Your task to perform on an android device: Open sound settings Image 0: 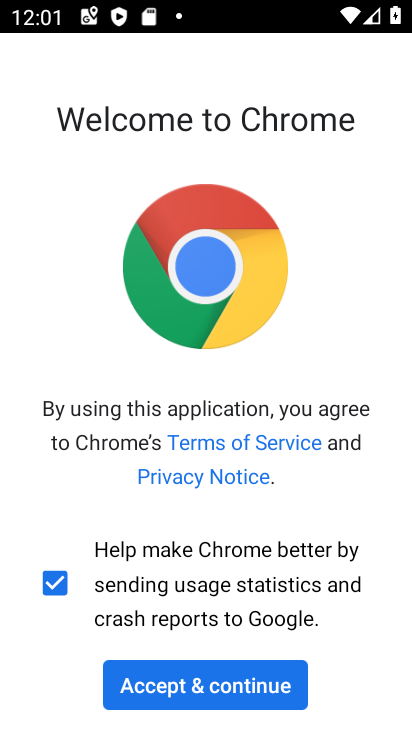
Step 0: press home button
Your task to perform on an android device: Open sound settings Image 1: 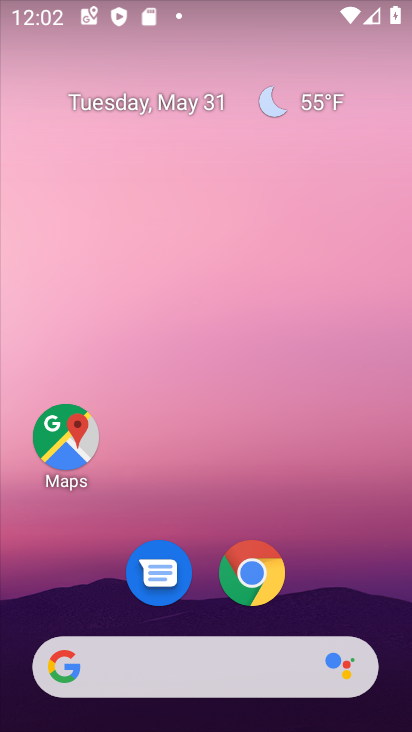
Step 1: click (364, 21)
Your task to perform on an android device: Open sound settings Image 2: 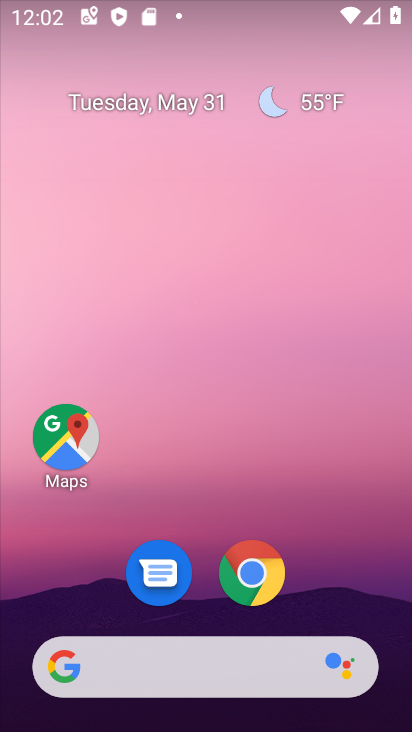
Step 2: drag from (318, 550) to (330, 47)
Your task to perform on an android device: Open sound settings Image 3: 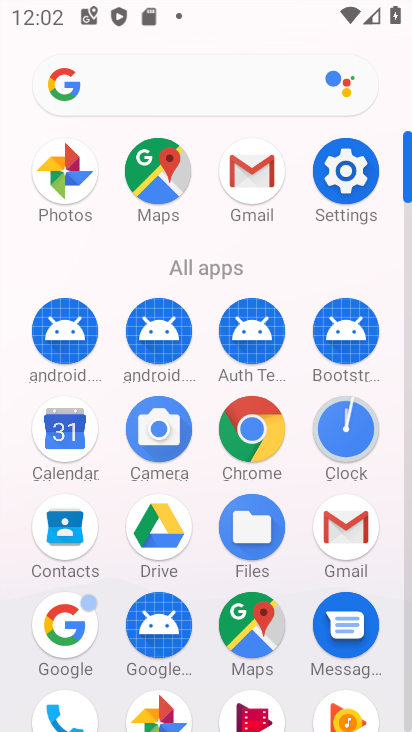
Step 3: click (342, 170)
Your task to perform on an android device: Open sound settings Image 4: 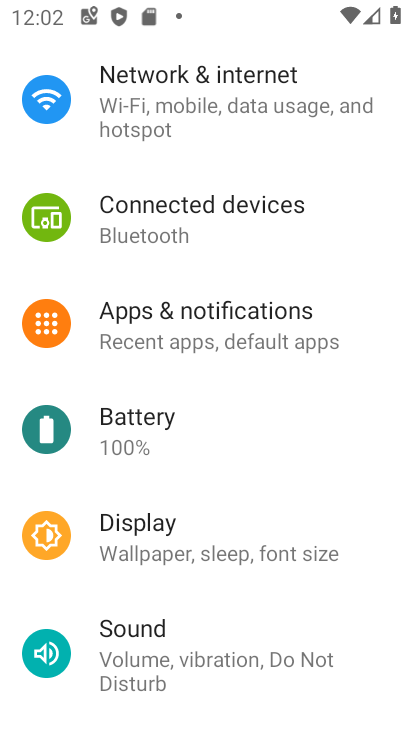
Step 4: drag from (182, 112) to (213, 450)
Your task to perform on an android device: Open sound settings Image 5: 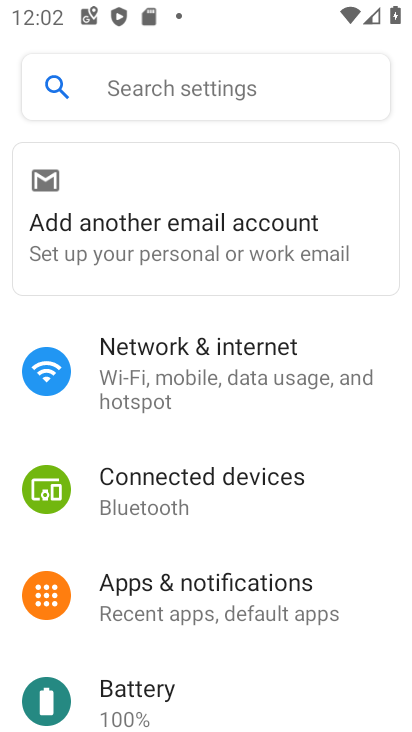
Step 5: drag from (125, 585) to (154, 66)
Your task to perform on an android device: Open sound settings Image 6: 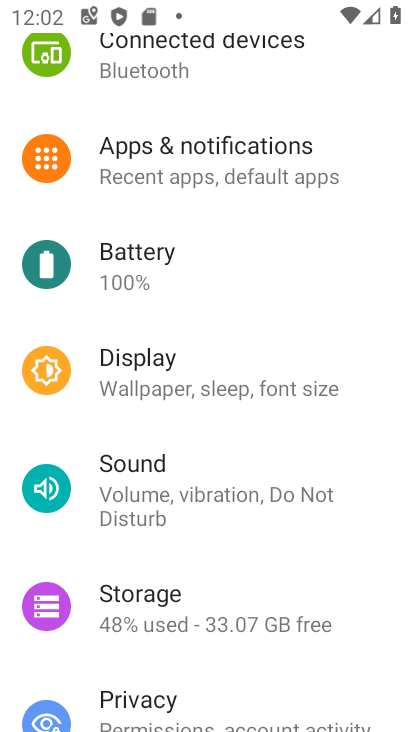
Step 6: click (123, 494)
Your task to perform on an android device: Open sound settings Image 7: 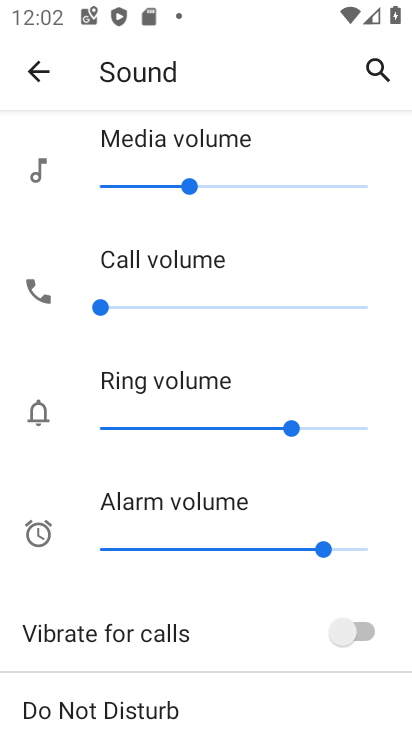
Step 7: task complete